Your task to perform on an android device: Is it going to rain tomorrow? Image 0: 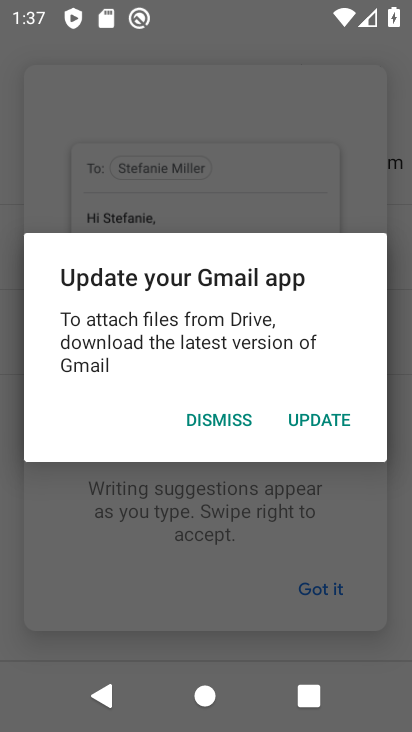
Step 0: press home button
Your task to perform on an android device: Is it going to rain tomorrow? Image 1: 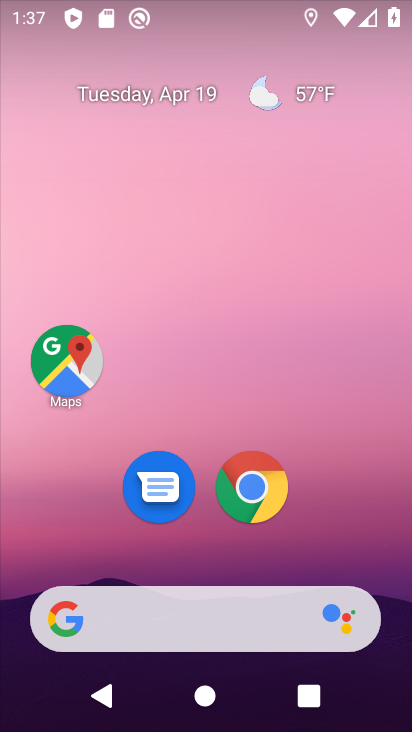
Step 1: click (261, 467)
Your task to perform on an android device: Is it going to rain tomorrow? Image 2: 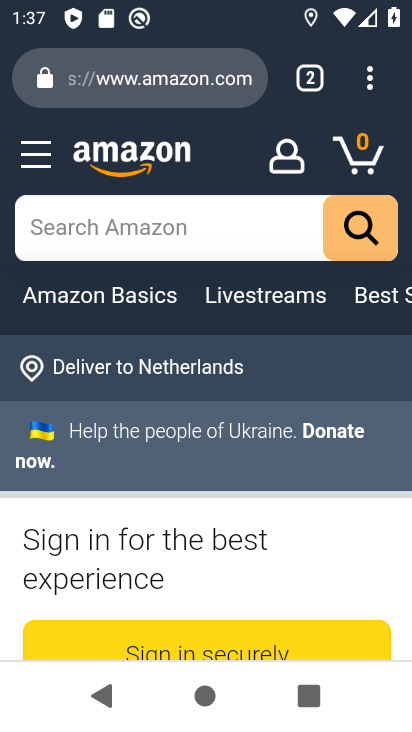
Step 2: click (297, 87)
Your task to perform on an android device: Is it going to rain tomorrow? Image 3: 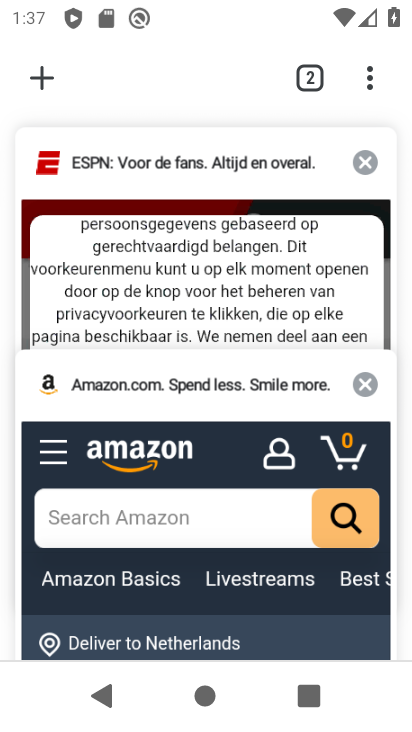
Step 3: click (37, 87)
Your task to perform on an android device: Is it going to rain tomorrow? Image 4: 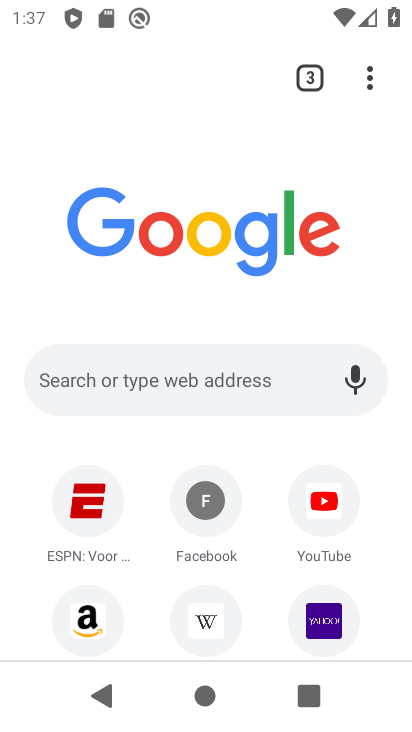
Step 4: click (185, 395)
Your task to perform on an android device: Is it going to rain tomorrow? Image 5: 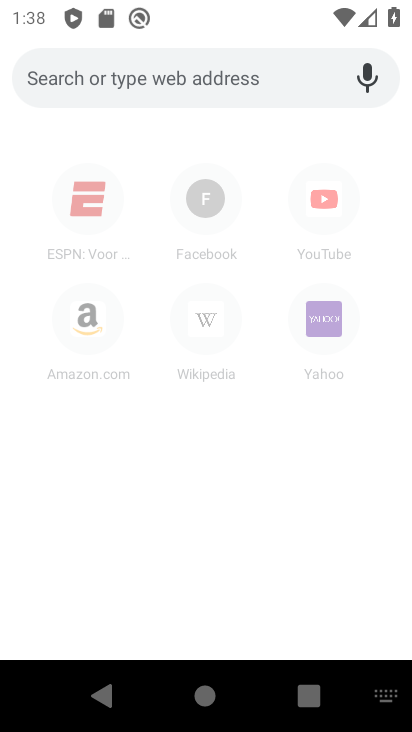
Step 5: type "is it going to rain tomorrow"
Your task to perform on an android device: Is it going to rain tomorrow? Image 6: 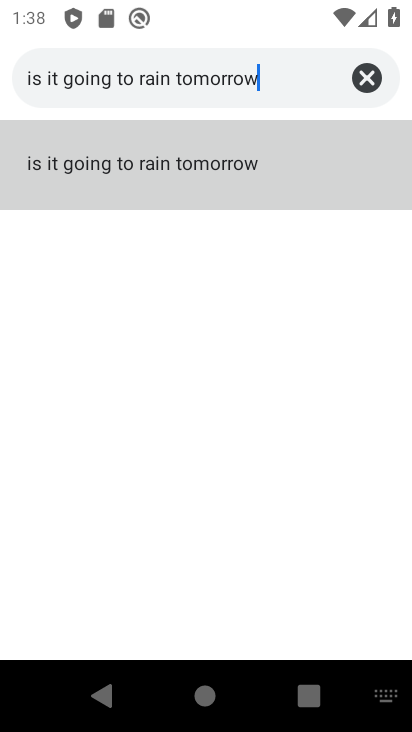
Step 6: click (176, 154)
Your task to perform on an android device: Is it going to rain tomorrow? Image 7: 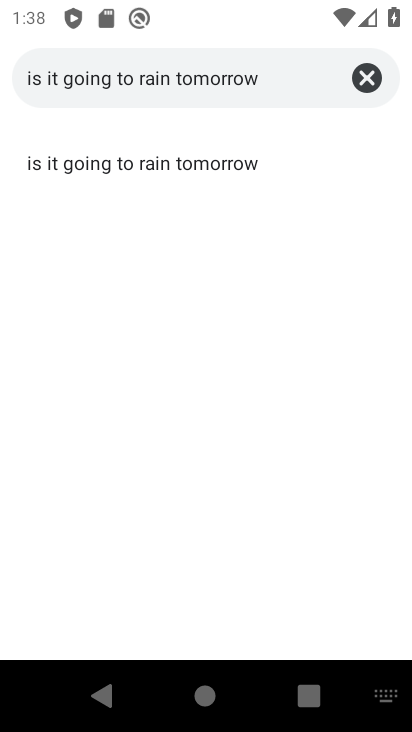
Step 7: click (188, 161)
Your task to perform on an android device: Is it going to rain tomorrow? Image 8: 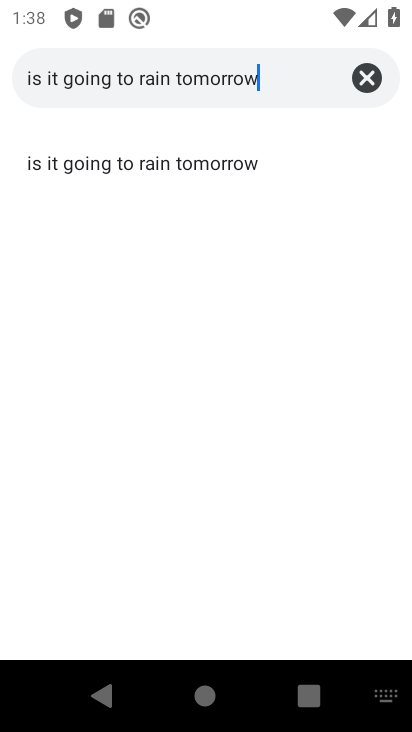
Step 8: click (173, 156)
Your task to perform on an android device: Is it going to rain tomorrow? Image 9: 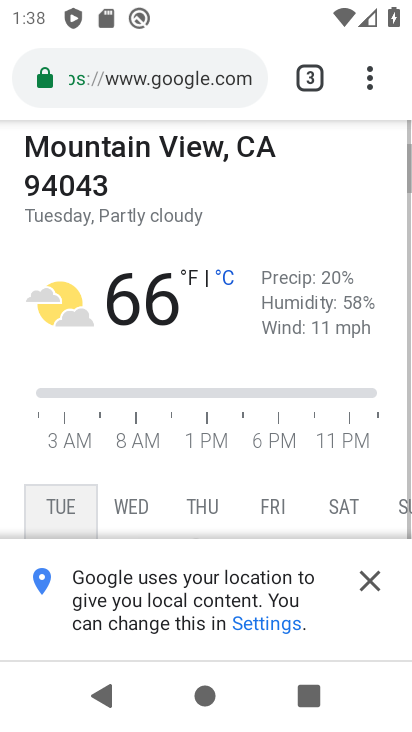
Step 9: click (356, 574)
Your task to perform on an android device: Is it going to rain tomorrow? Image 10: 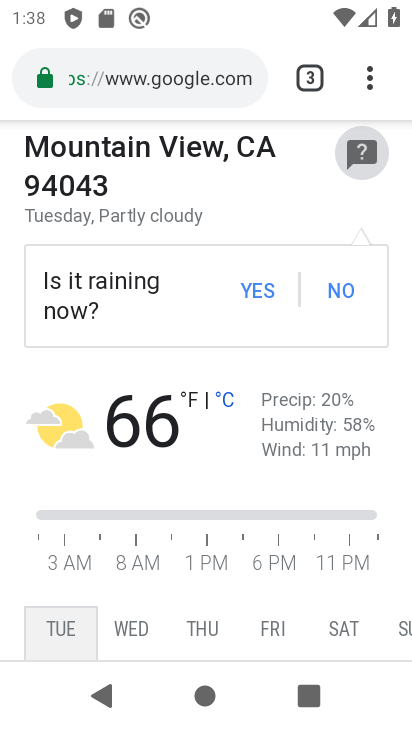
Step 10: task complete